Your task to perform on an android device: move a message to another label in the gmail app Image 0: 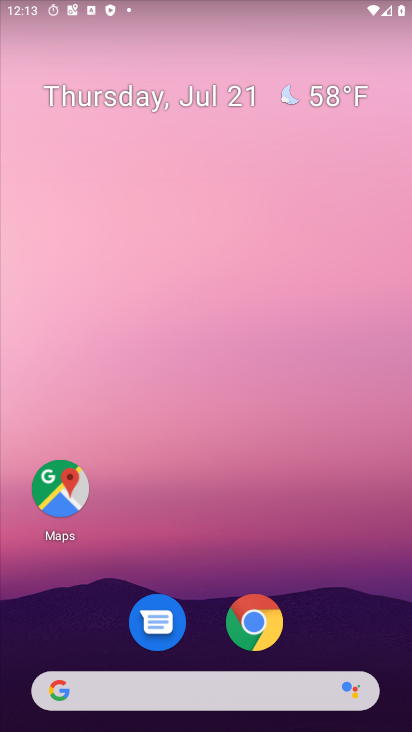
Step 0: drag from (62, 669) to (269, 155)
Your task to perform on an android device: move a message to another label in the gmail app Image 1: 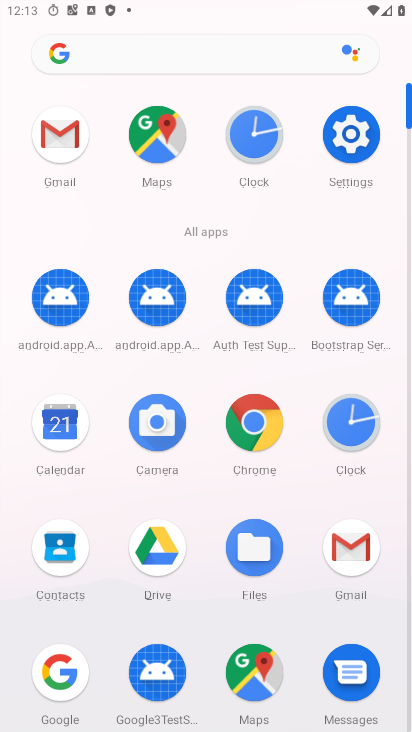
Step 1: click (55, 143)
Your task to perform on an android device: move a message to another label in the gmail app Image 2: 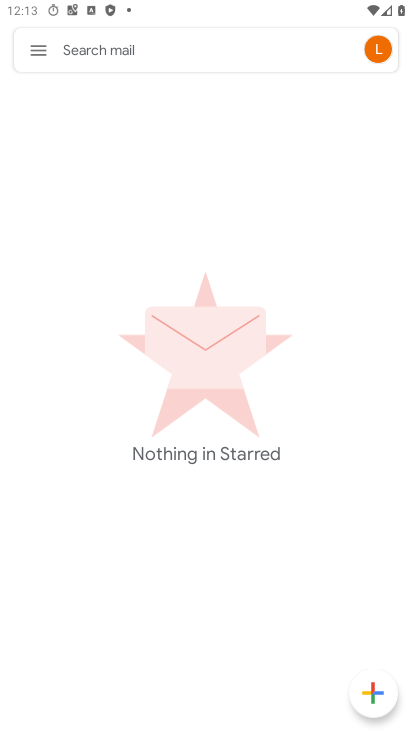
Step 2: task complete